Your task to perform on an android device: Set the phone to "Do not disturb". Image 0: 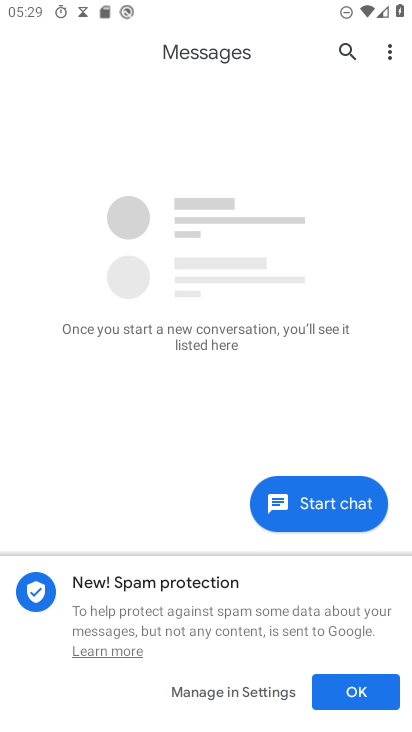
Step 0: press home button
Your task to perform on an android device: Set the phone to "Do not disturb". Image 1: 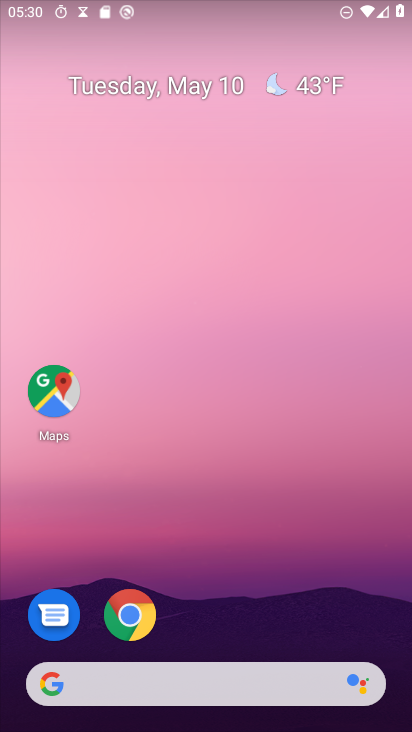
Step 1: drag from (247, 639) to (212, 192)
Your task to perform on an android device: Set the phone to "Do not disturb". Image 2: 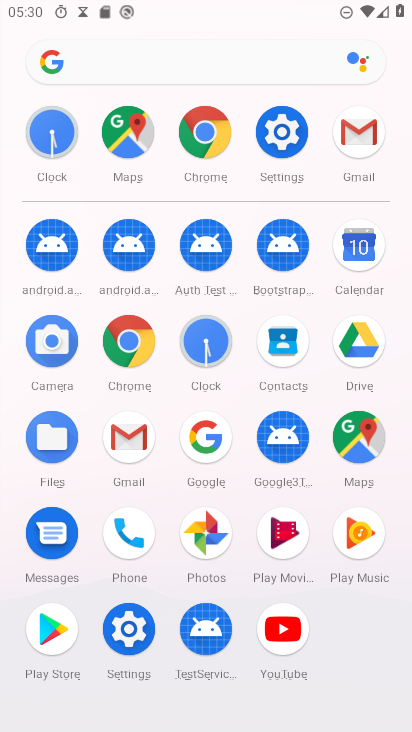
Step 2: click (286, 143)
Your task to perform on an android device: Set the phone to "Do not disturb". Image 3: 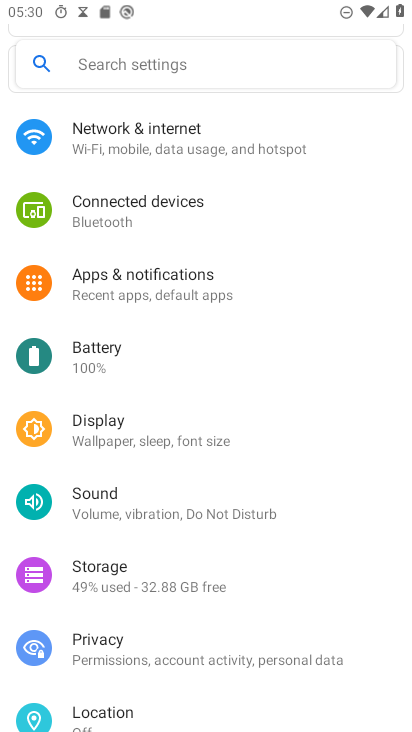
Step 3: click (163, 504)
Your task to perform on an android device: Set the phone to "Do not disturb". Image 4: 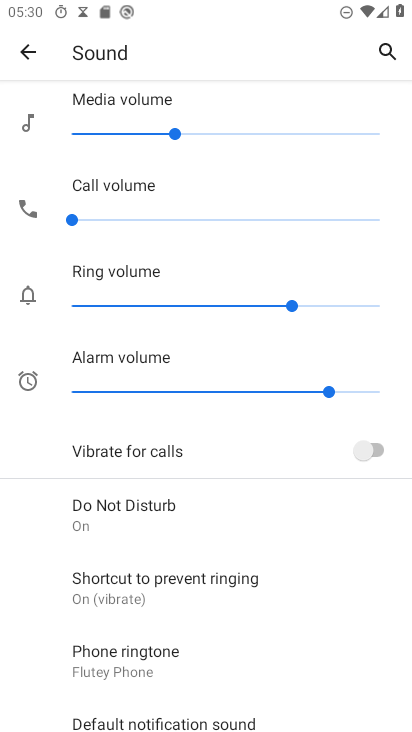
Step 4: click (145, 521)
Your task to perform on an android device: Set the phone to "Do not disturb". Image 5: 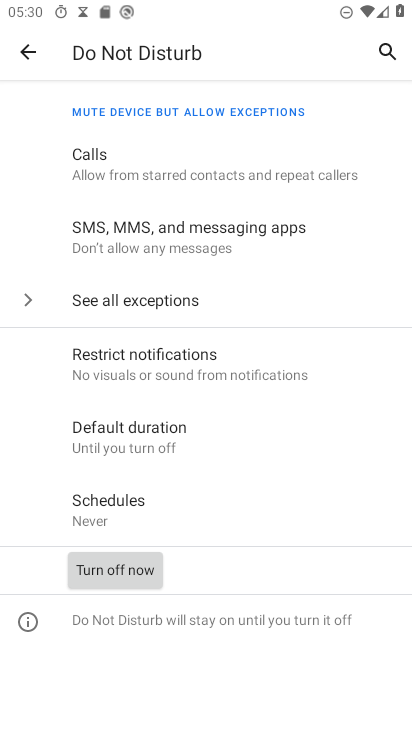
Step 5: click (119, 580)
Your task to perform on an android device: Set the phone to "Do not disturb". Image 6: 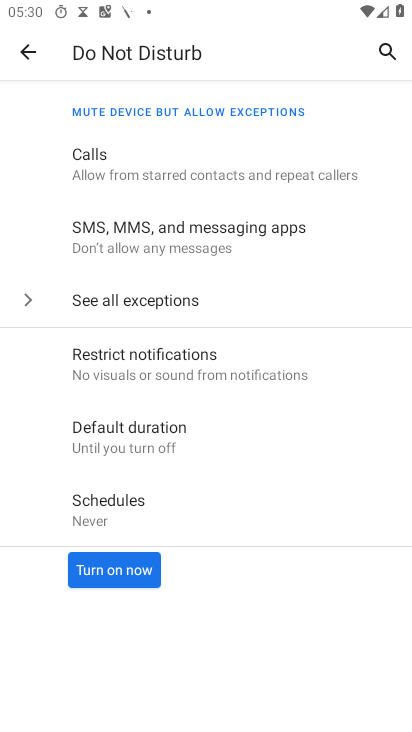
Step 6: task complete